Your task to perform on an android device: clear history in the chrome app Image 0: 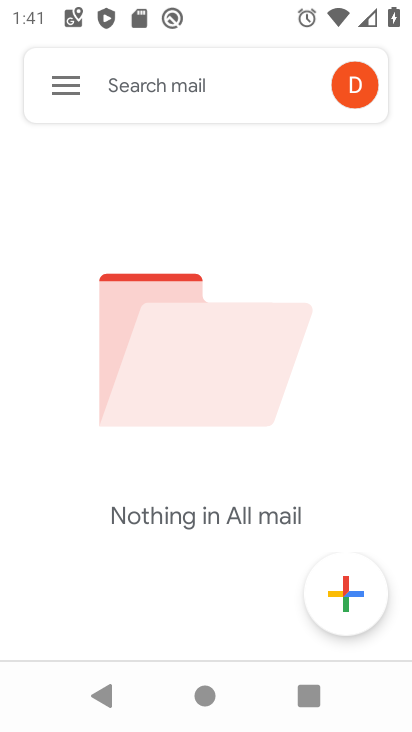
Step 0: press home button
Your task to perform on an android device: clear history in the chrome app Image 1: 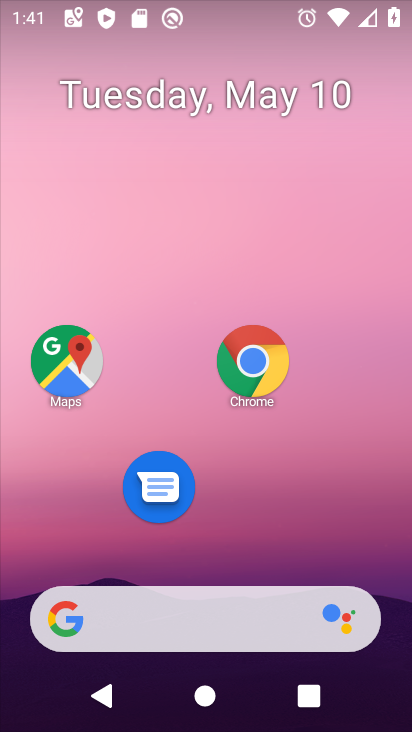
Step 1: drag from (315, 528) to (188, 114)
Your task to perform on an android device: clear history in the chrome app Image 2: 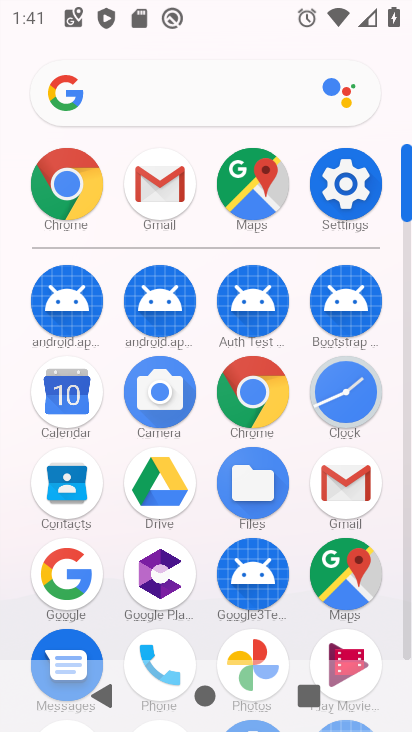
Step 2: click (238, 404)
Your task to perform on an android device: clear history in the chrome app Image 3: 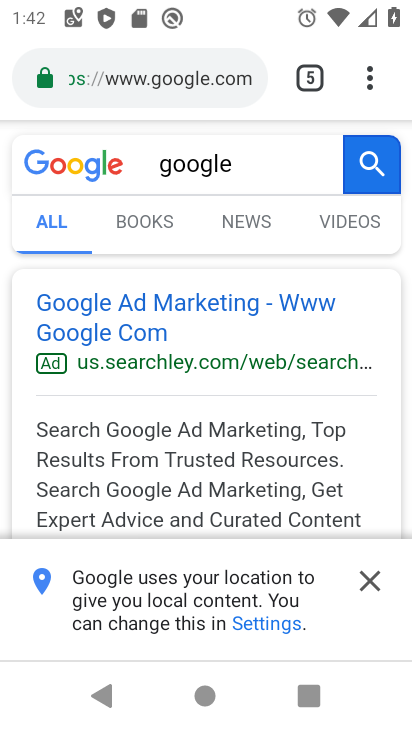
Step 3: click (391, 83)
Your task to perform on an android device: clear history in the chrome app Image 4: 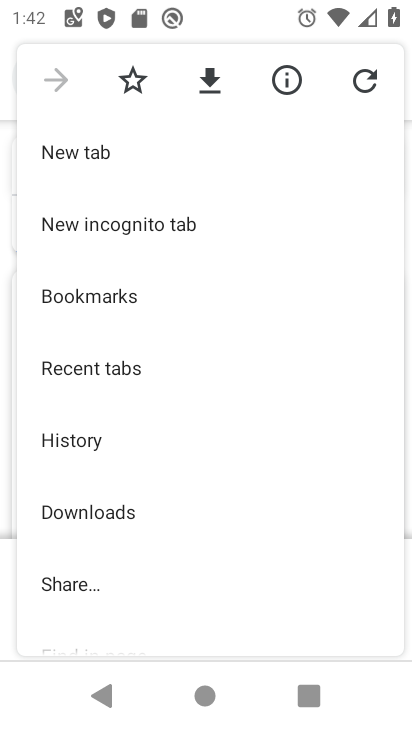
Step 4: click (246, 435)
Your task to perform on an android device: clear history in the chrome app Image 5: 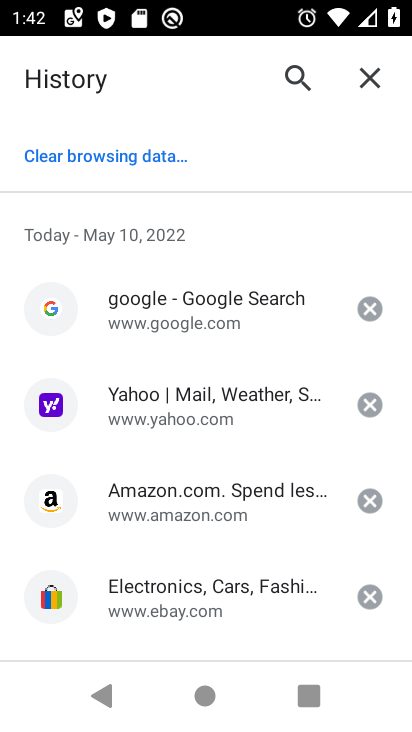
Step 5: click (170, 148)
Your task to perform on an android device: clear history in the chrome app Image 6: 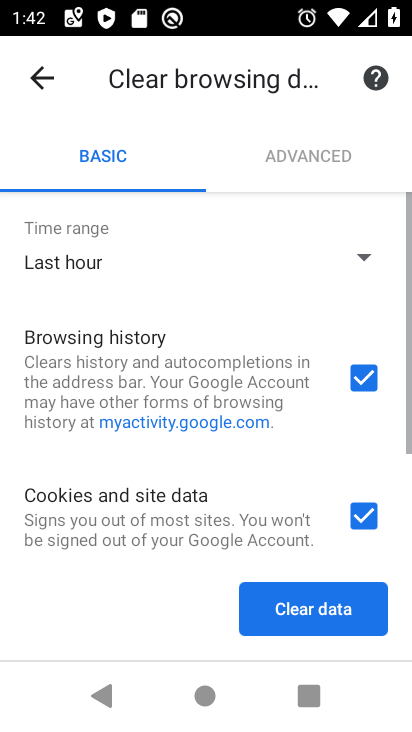
Step 6: click (327, 601)
Your task to perform on an android device: clear history in the chrome app Image 7: 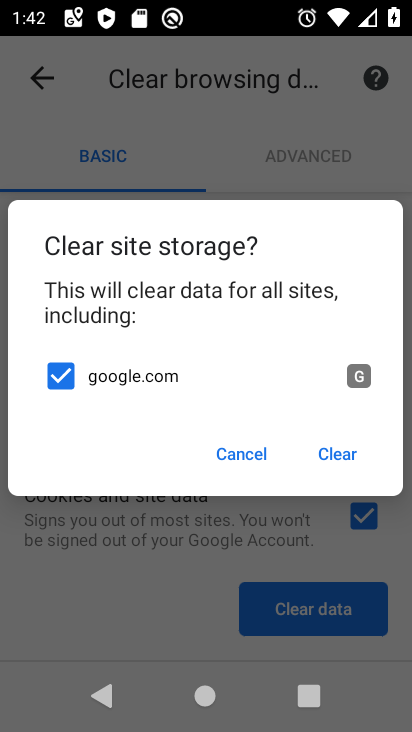
Step 7: click (336, 429)
Your task to perform on an android device: clear history in the chrome app Image 8: 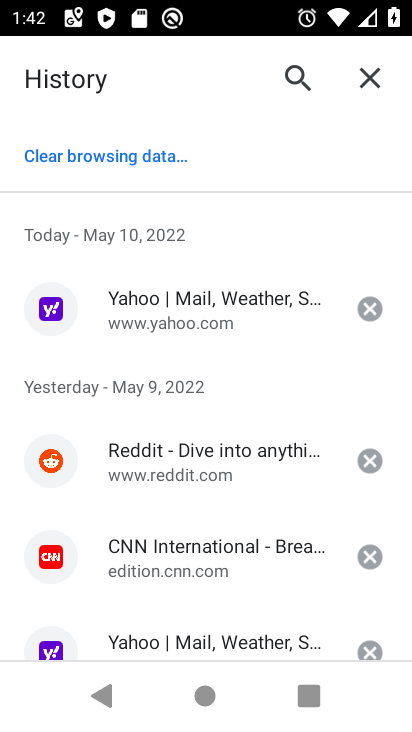
Step 8: task complete